Your task to perform on an android device: Open ESPN.com Image 0: 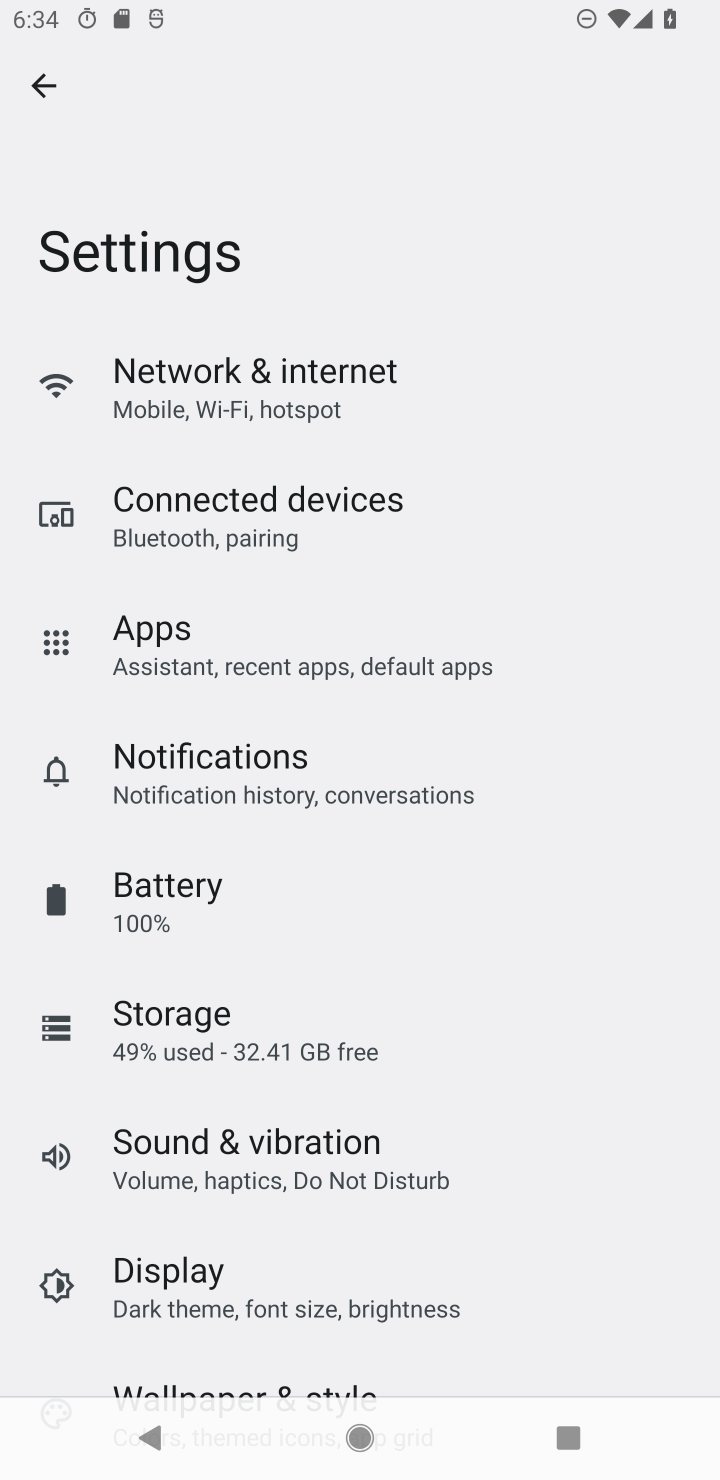
Step 0: drag from (416, 1114) to (363, 222)
Your task to perform on an android device: Open ESPN.com Image 1: 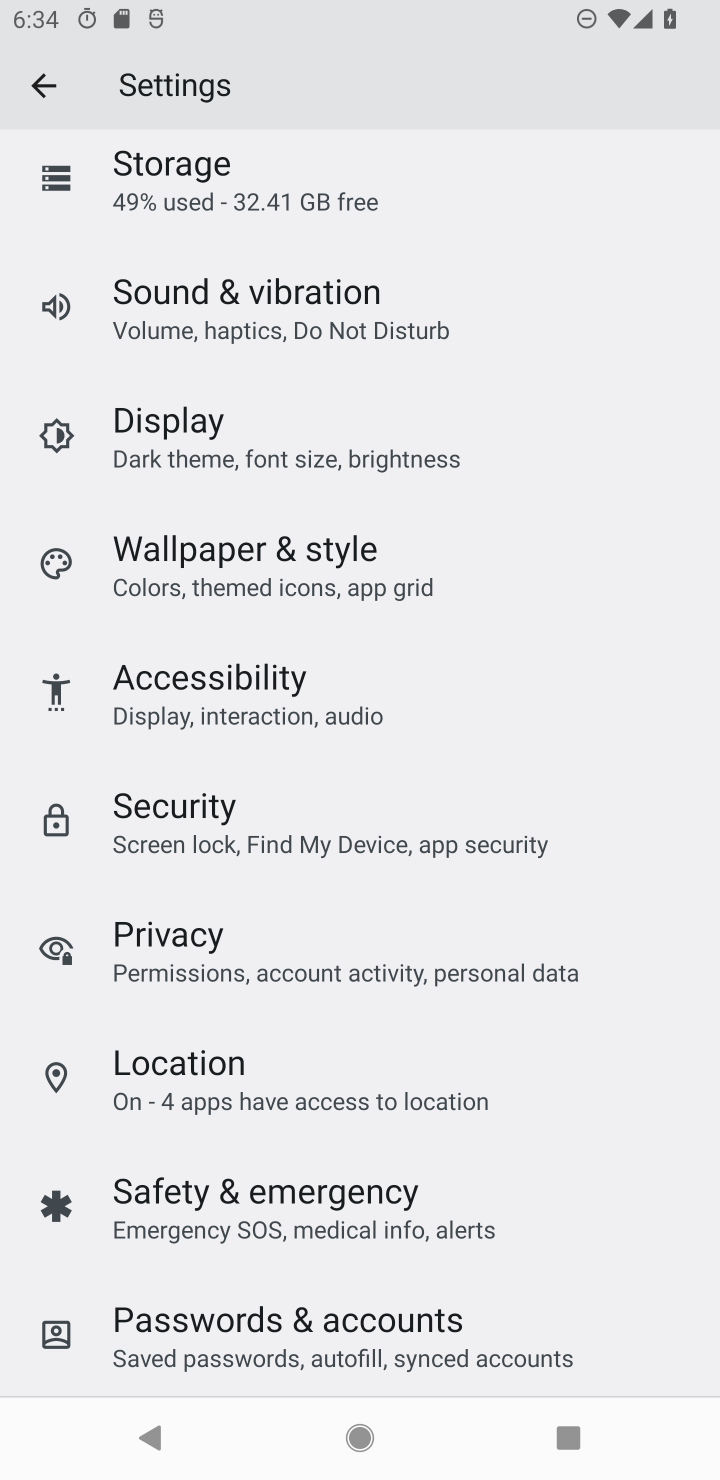
Step 1: drag from (388, 546) to (508, 1477)
Your task to perform on an android device: Open ESPN.com Image 2: 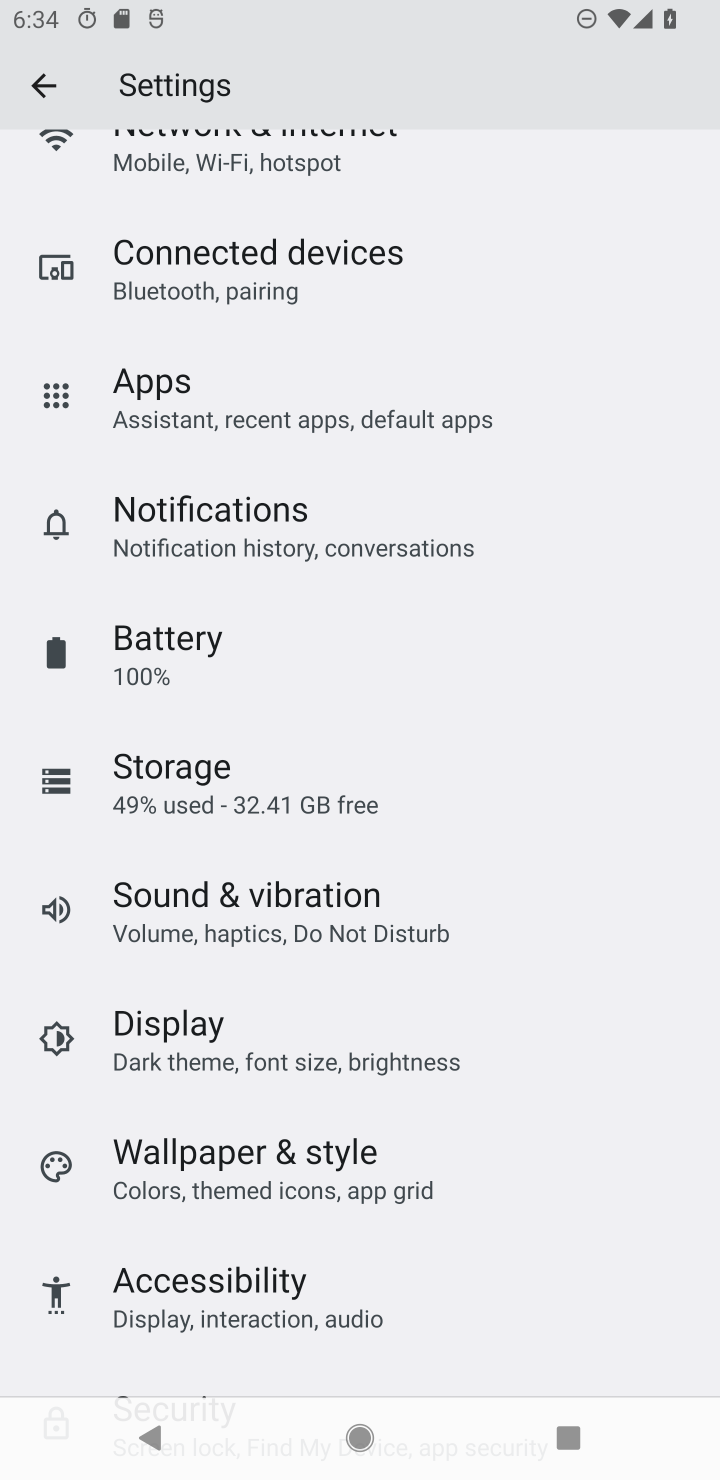
Step 2: press home button
Your task to perform on an android device: Open ESPN.com Image 3: 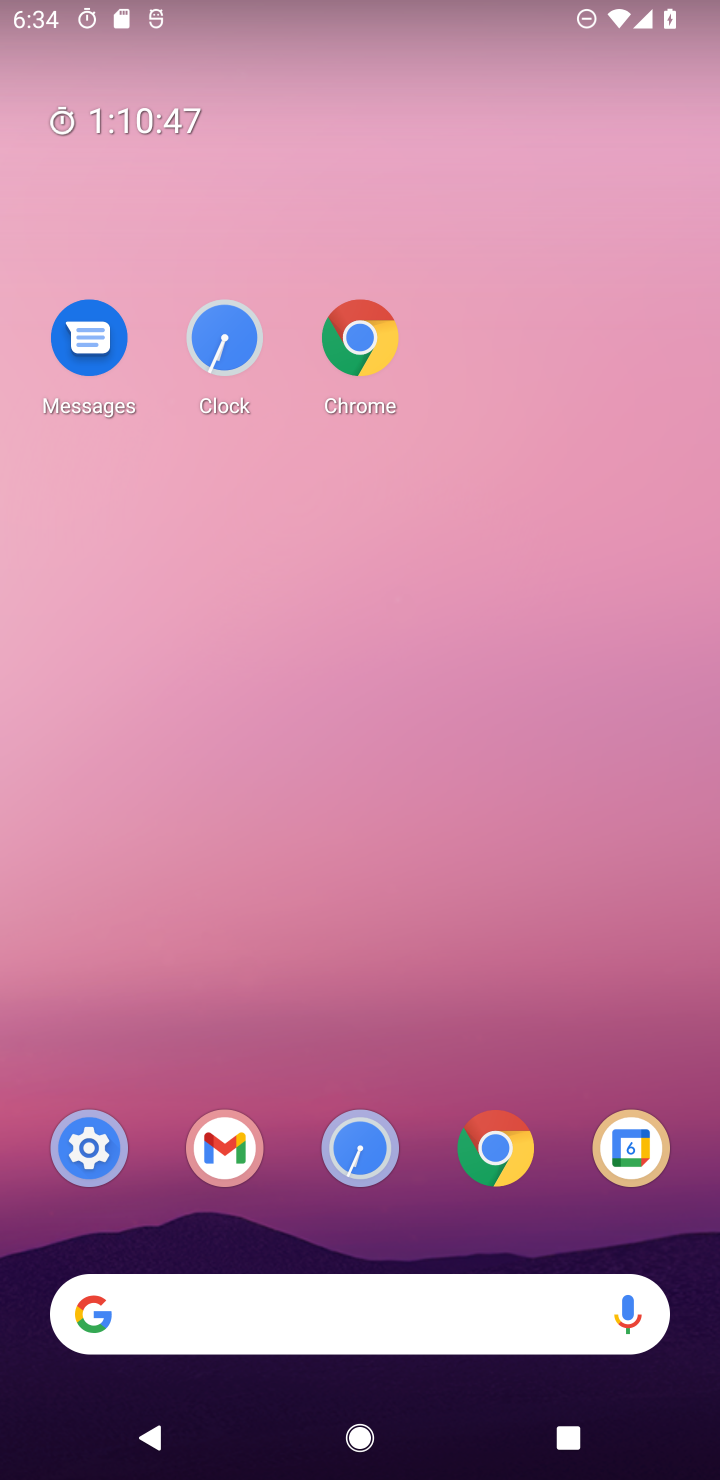
Step 3: drag from (410, 1195) to (463, 307)
Your task to perform on an android device: Open ESPN.com Image 4: 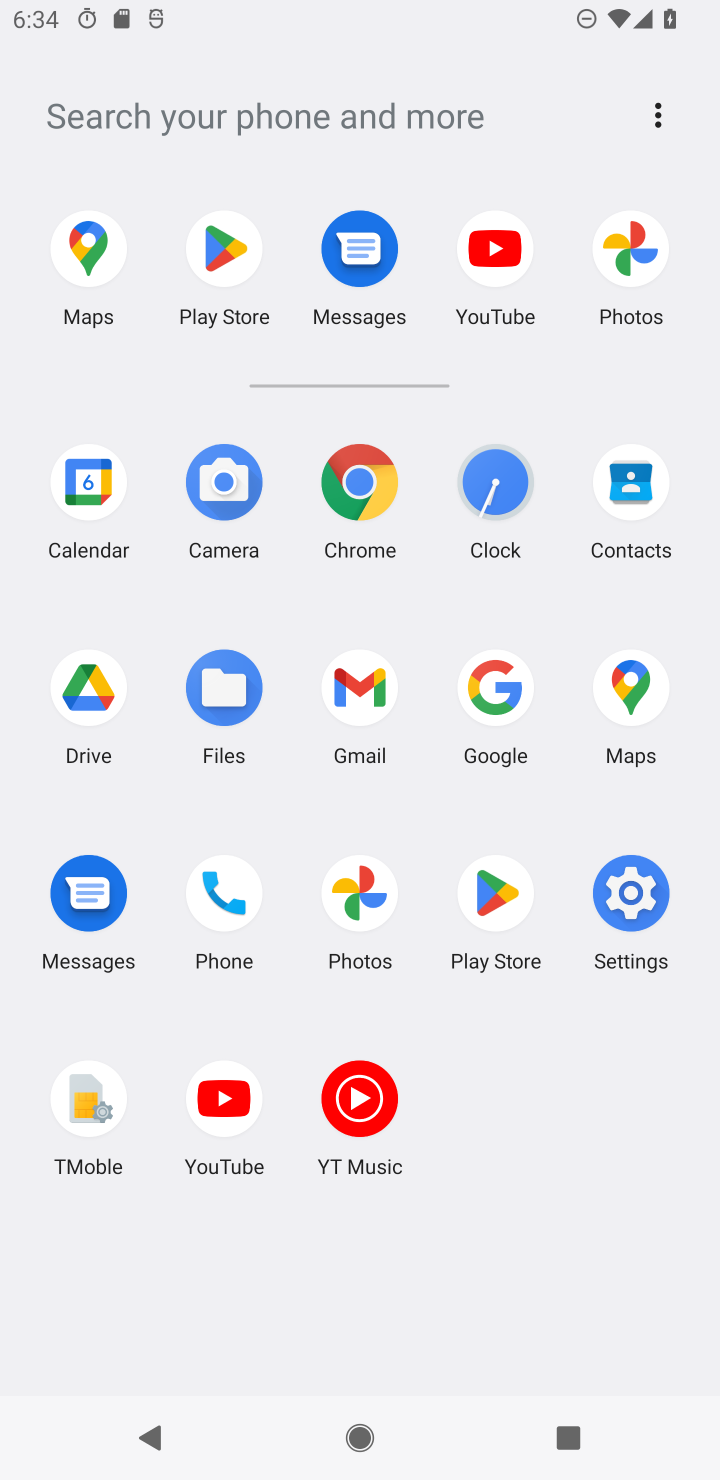
Step 4: click (326, 704)
Your task to perform on an android device: Open ESPN.com Image 5: 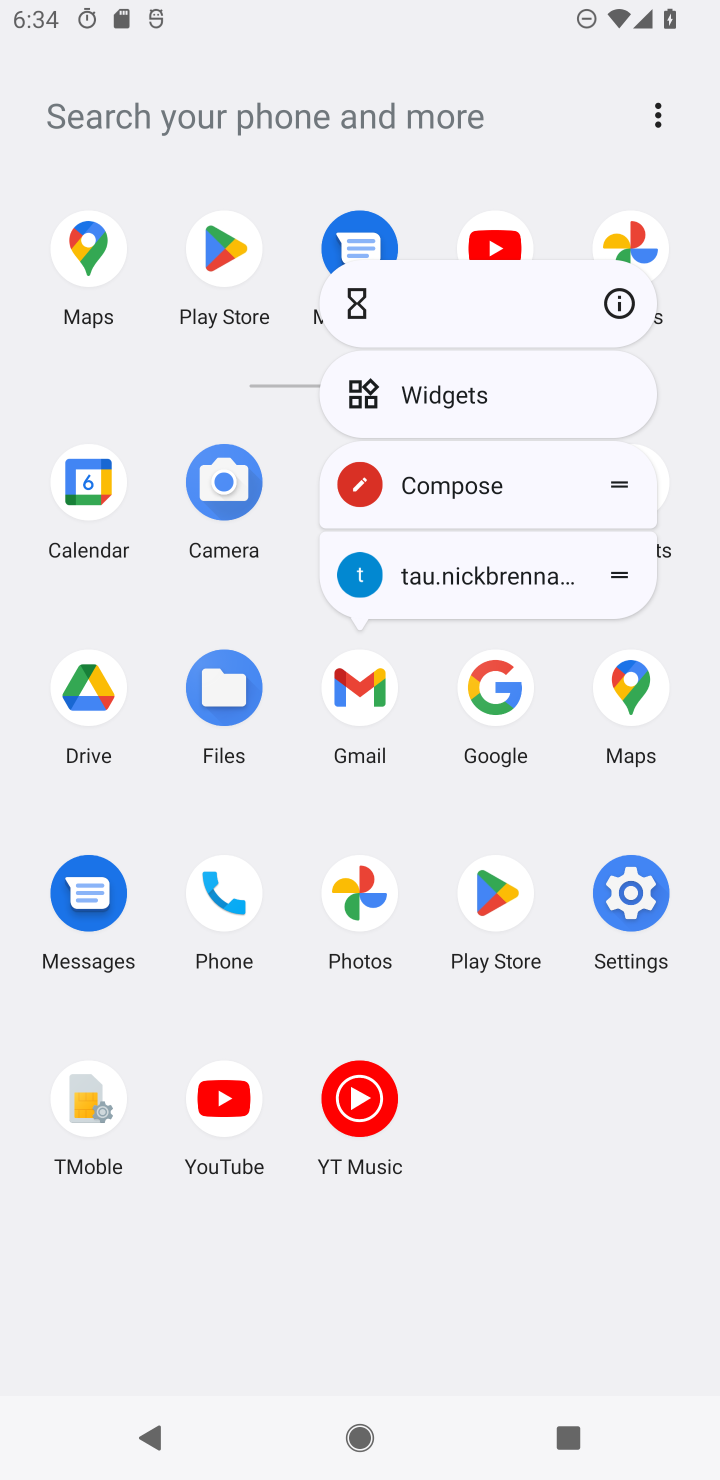
Step 5: click (582, 299)
Your task to perform on an android device: Open ESPN.com Image 6: 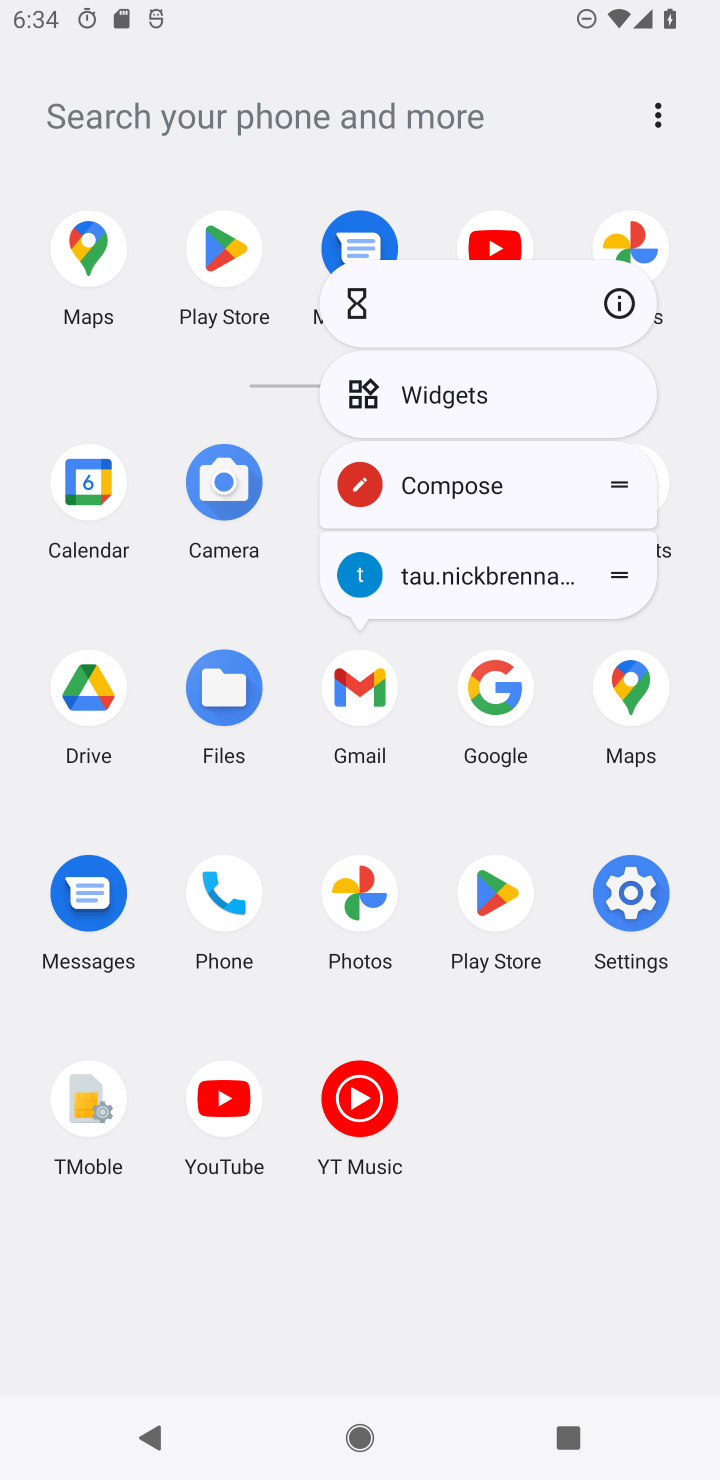
Step 6: click (600, 305)
Your task to perform on an android device: Open ESPN.com Image 7: 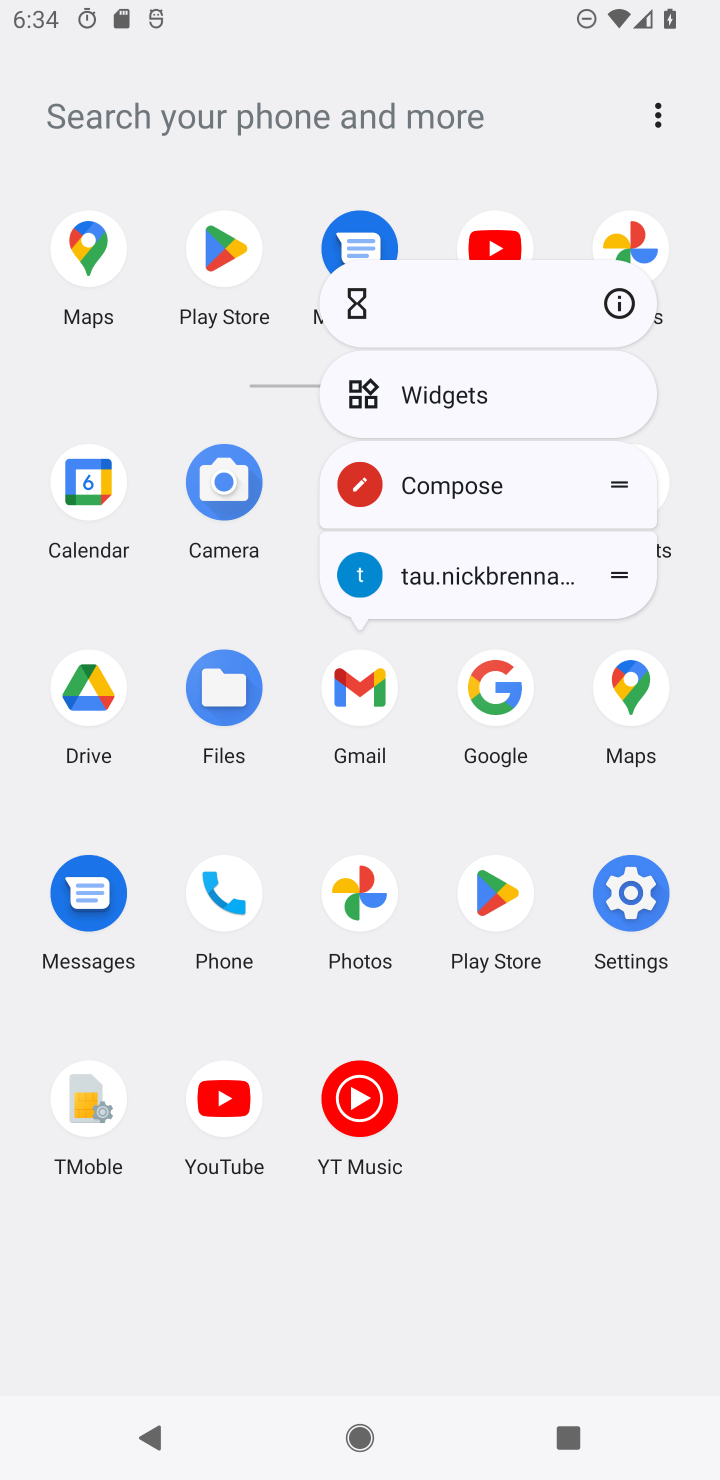
Step 7: click (613, 295)
Your task to perform on an android device: Open ESPN.com Image 8: 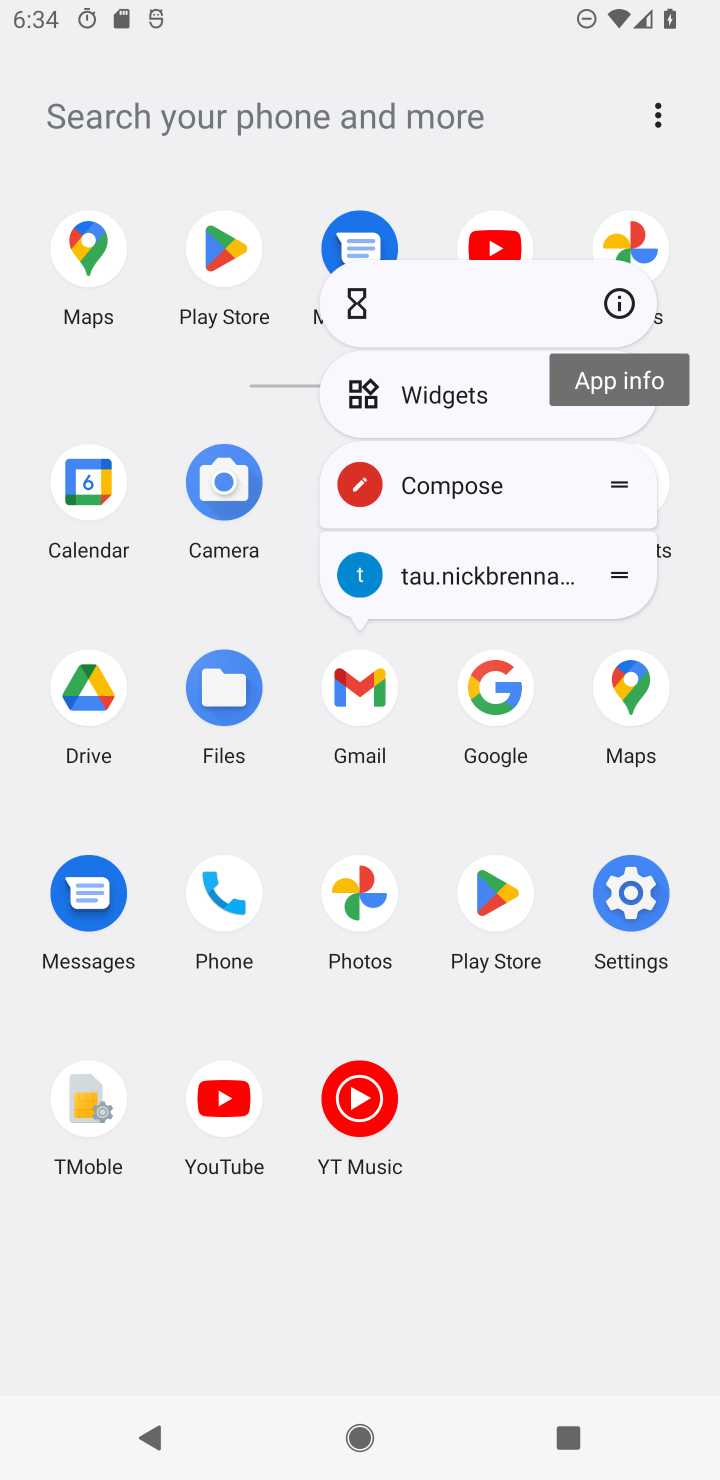
Step 8: click (355, 691)
Your task to perform on an android device: Open ESPN.com Image 9: 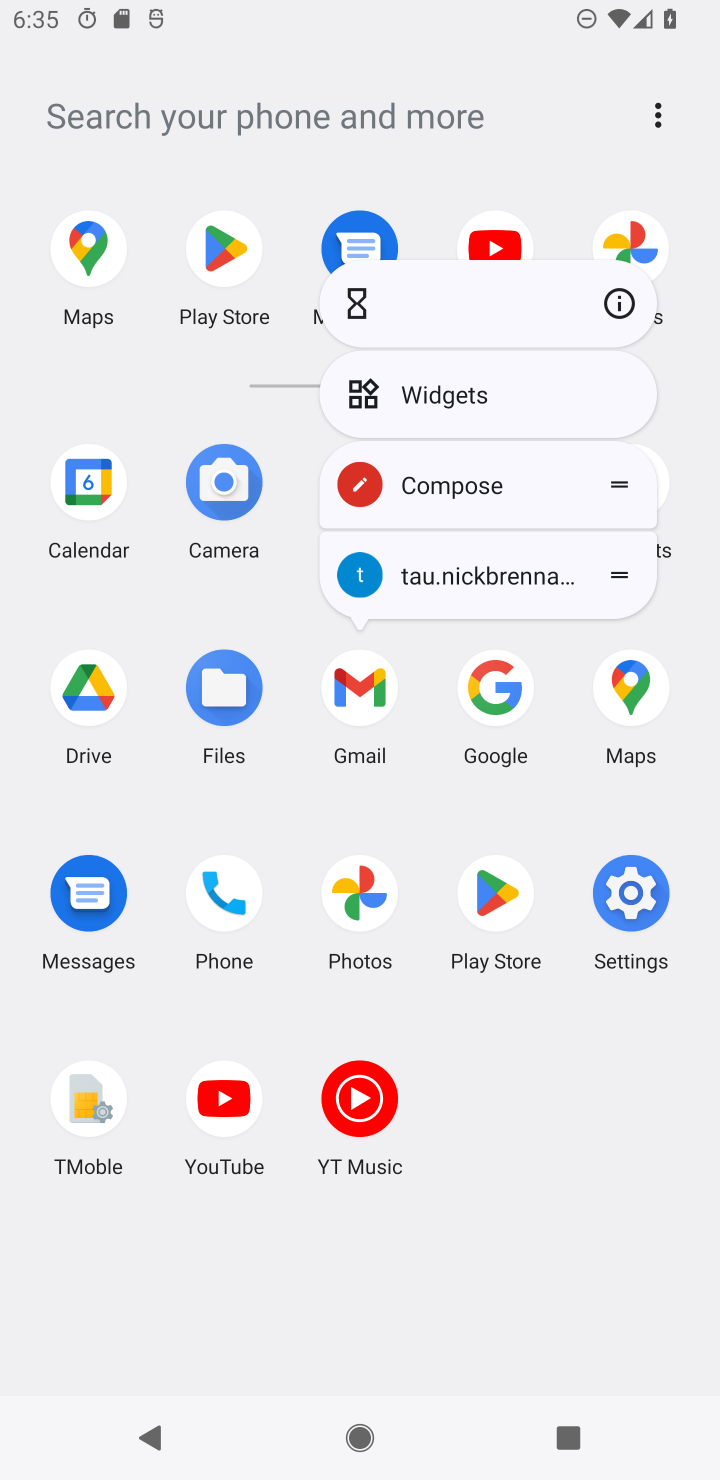
Step 9: click (343, 673)
Your task to perform on an android device: Open ESPN.com Image 10: 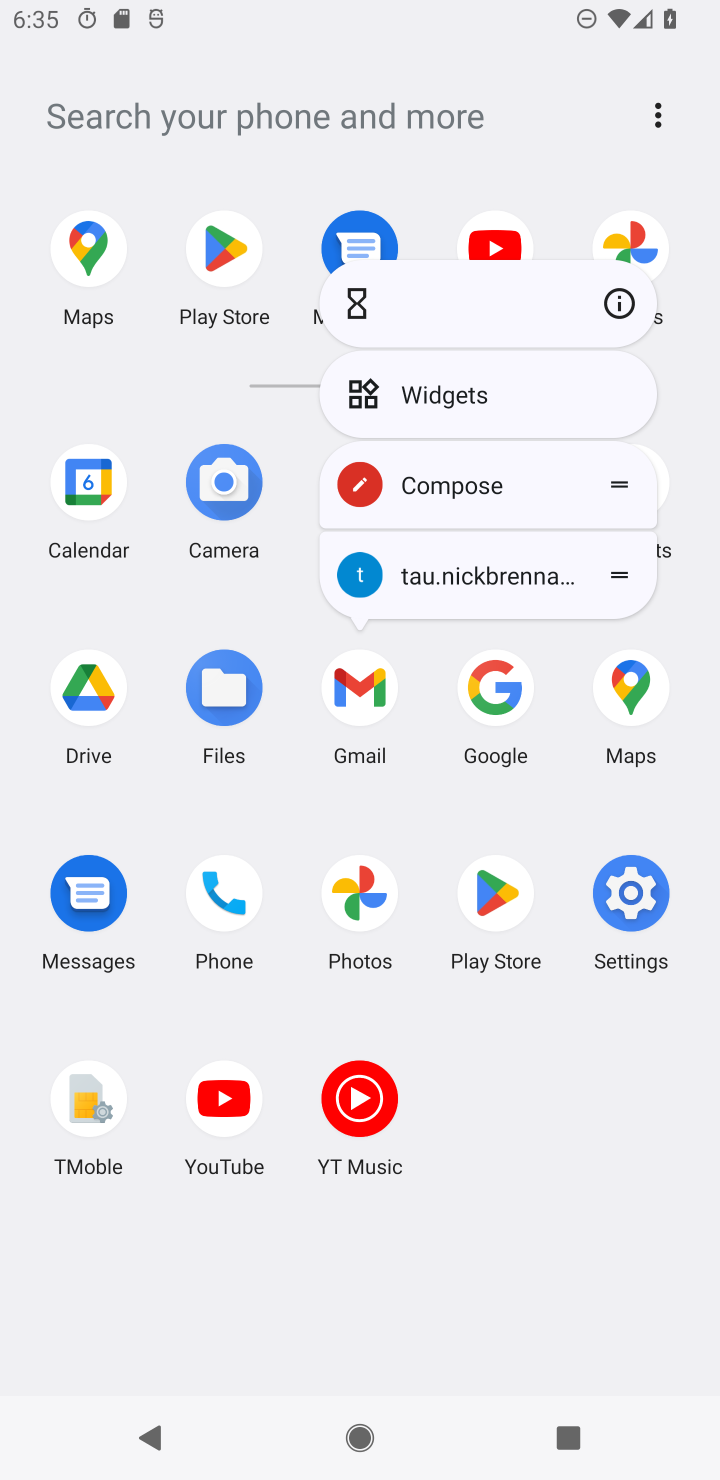
Step 10: click (351, 665)
Your task to perform on an android device: Open ESPN.com Image 11: 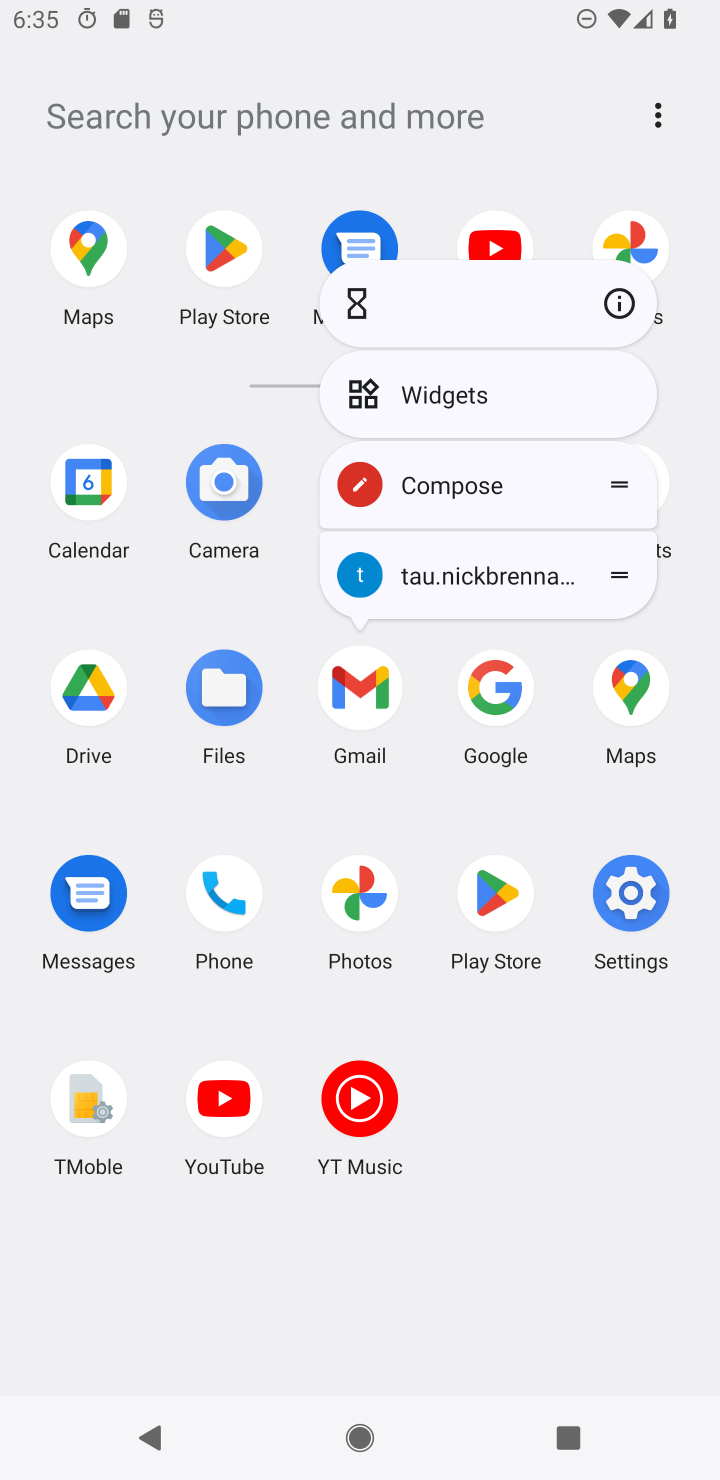
Step 11: click (351, 665)
Your task to perform on an android device: Open ESPN.com Image 12: 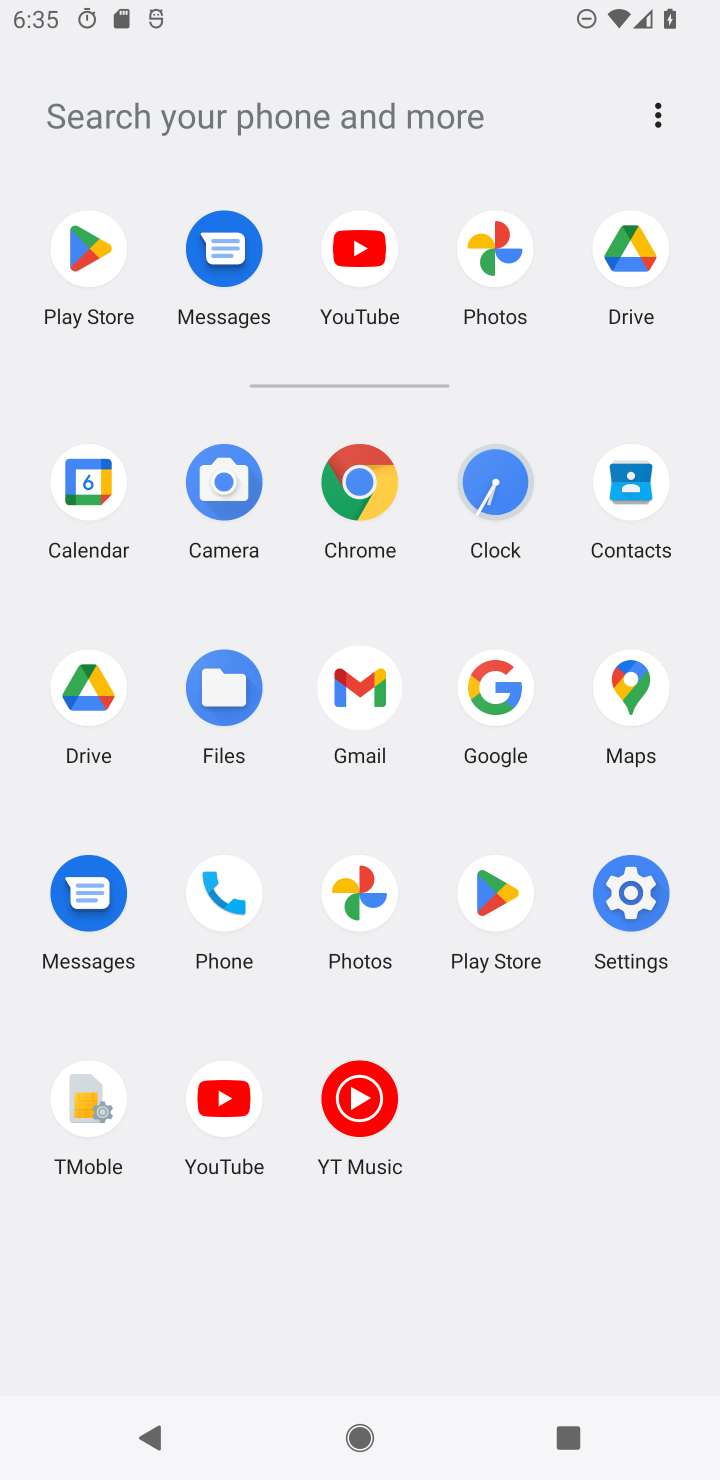
Step 12: click (351, 665)
Your task to perform on an android device: Open ESPN.com Image 13: 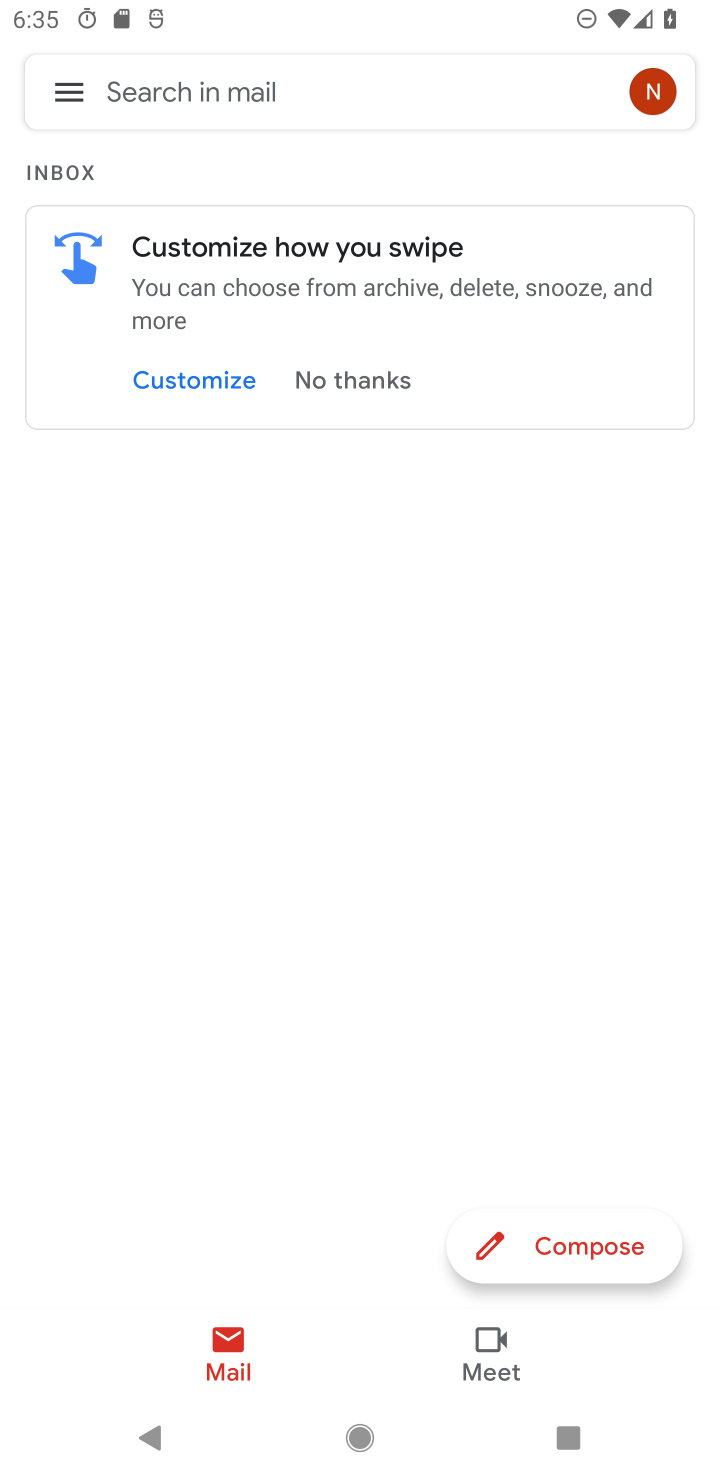
Step 13: drag from (337, 1039) to (389, 584)
Your task to perform on an android device: Open ESPN.com Image 14: 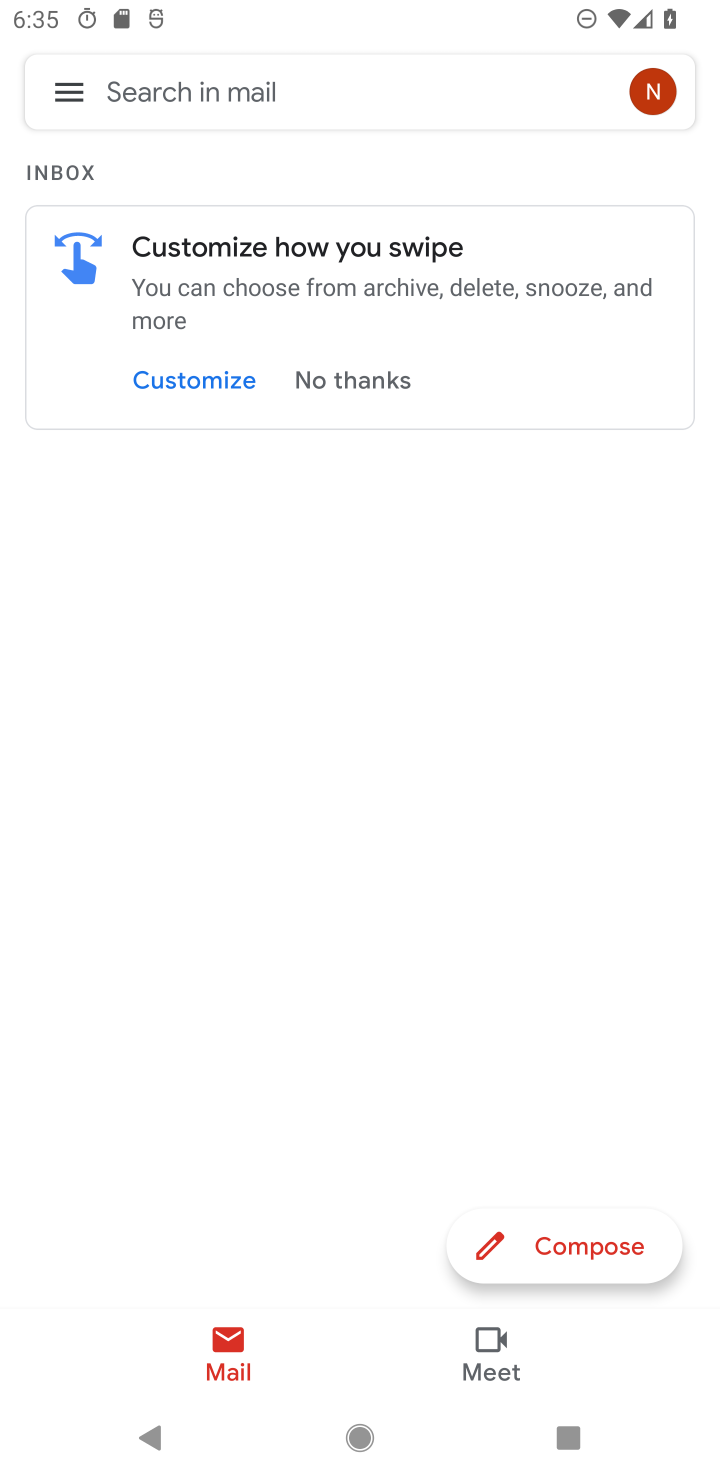
Step 14: drag from (407, 662) to (392, 305)
Your task to perform on an android device: Open ESPN.com Image 15: 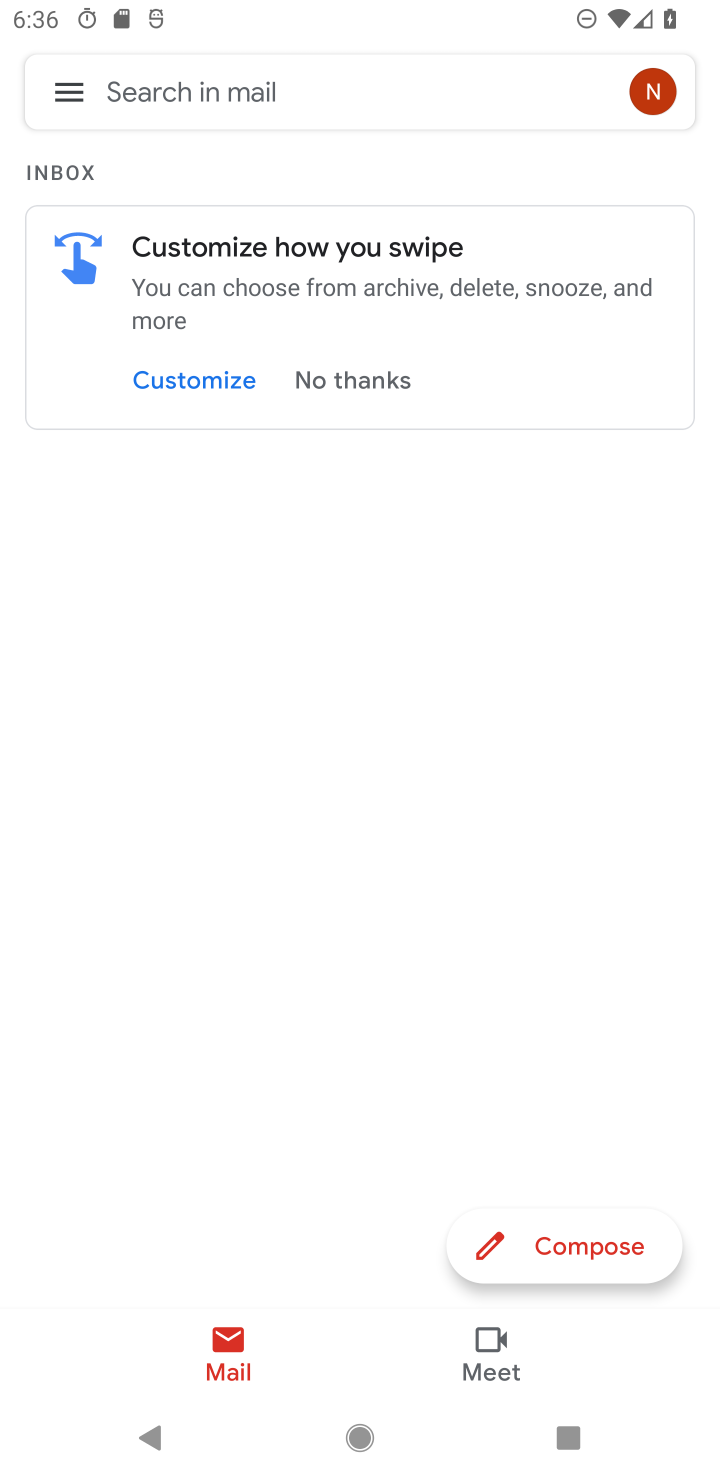
Step 15: press home button
Your task to perform on an android device: Open ESPN.com Image 16: 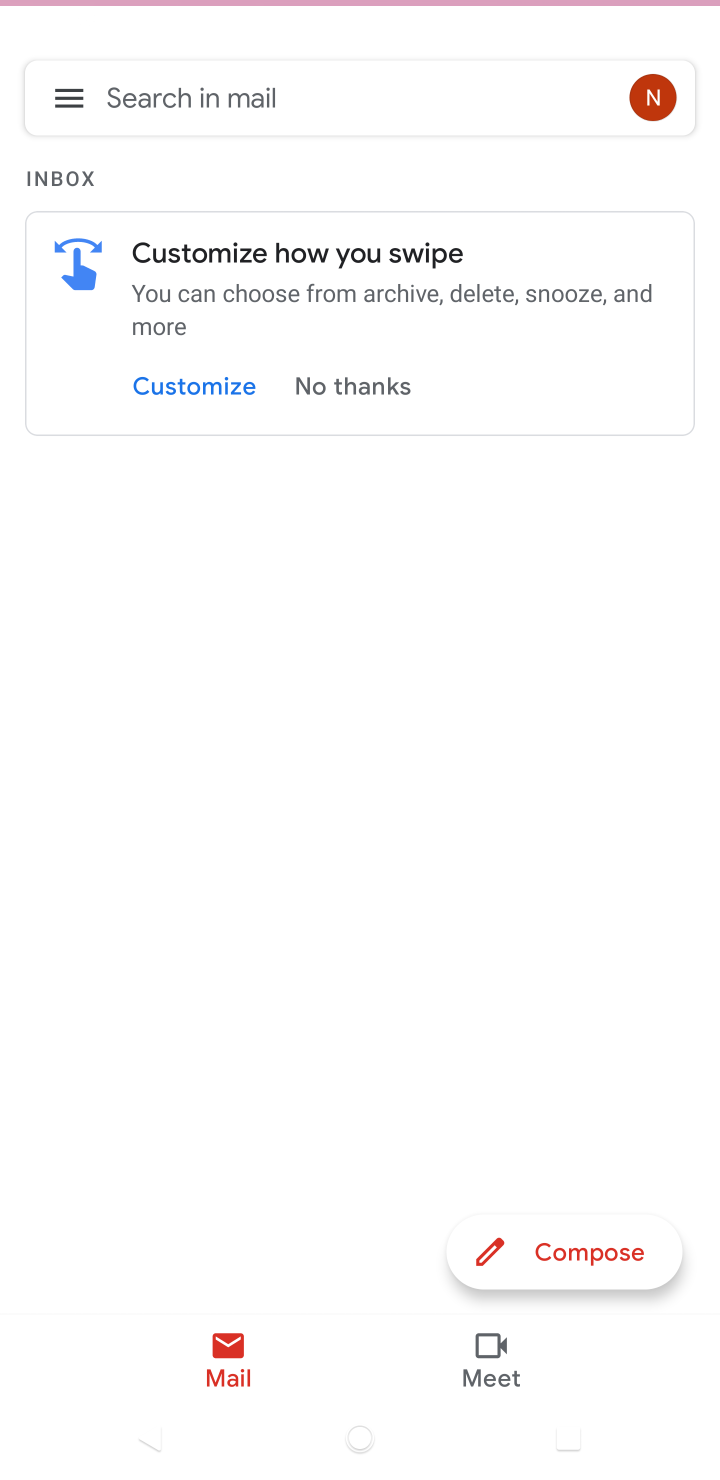
Step 16: drag from (353, 1193) to (359, 229)
Your task to perform on an android device: Open ESPN.com Image 17: 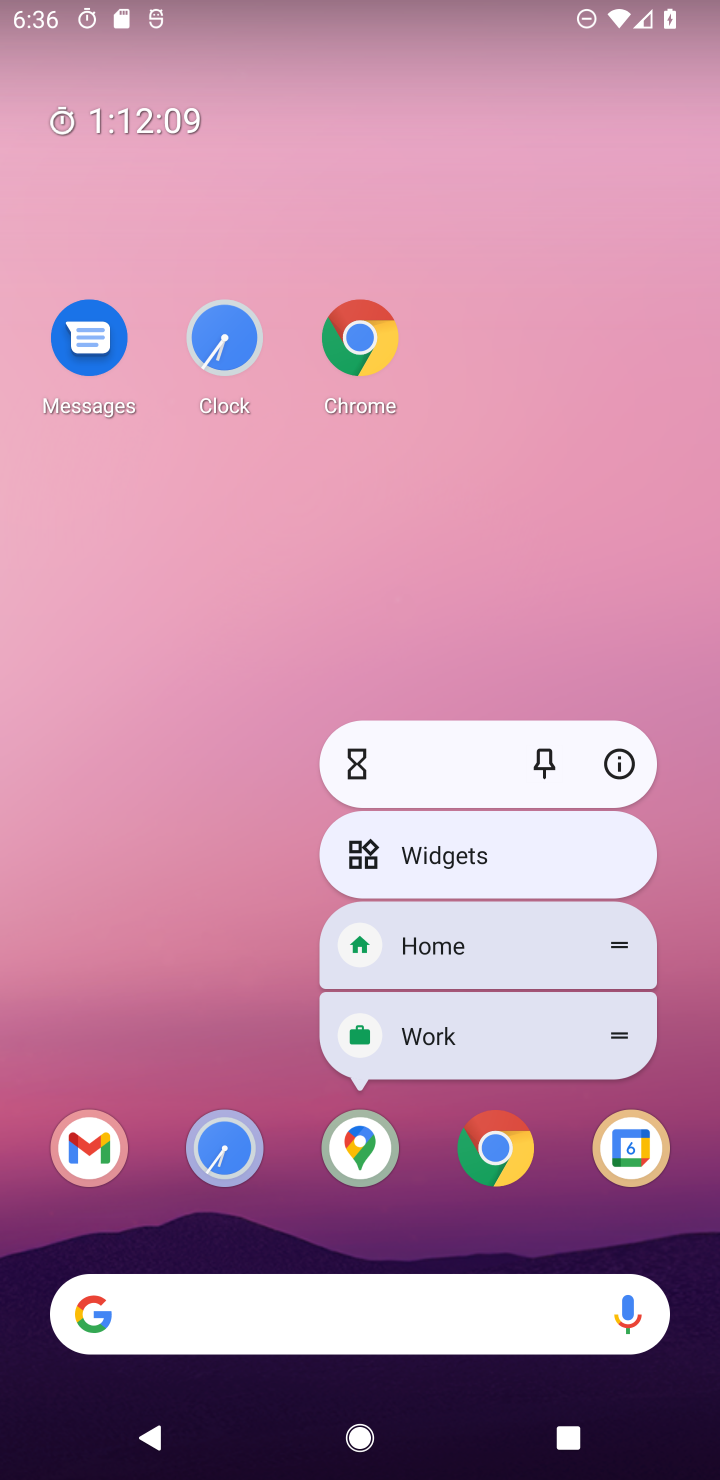
Step 17: click (479, 1140)
Your task to perform on an android device: Open ESPN.com Image 18: 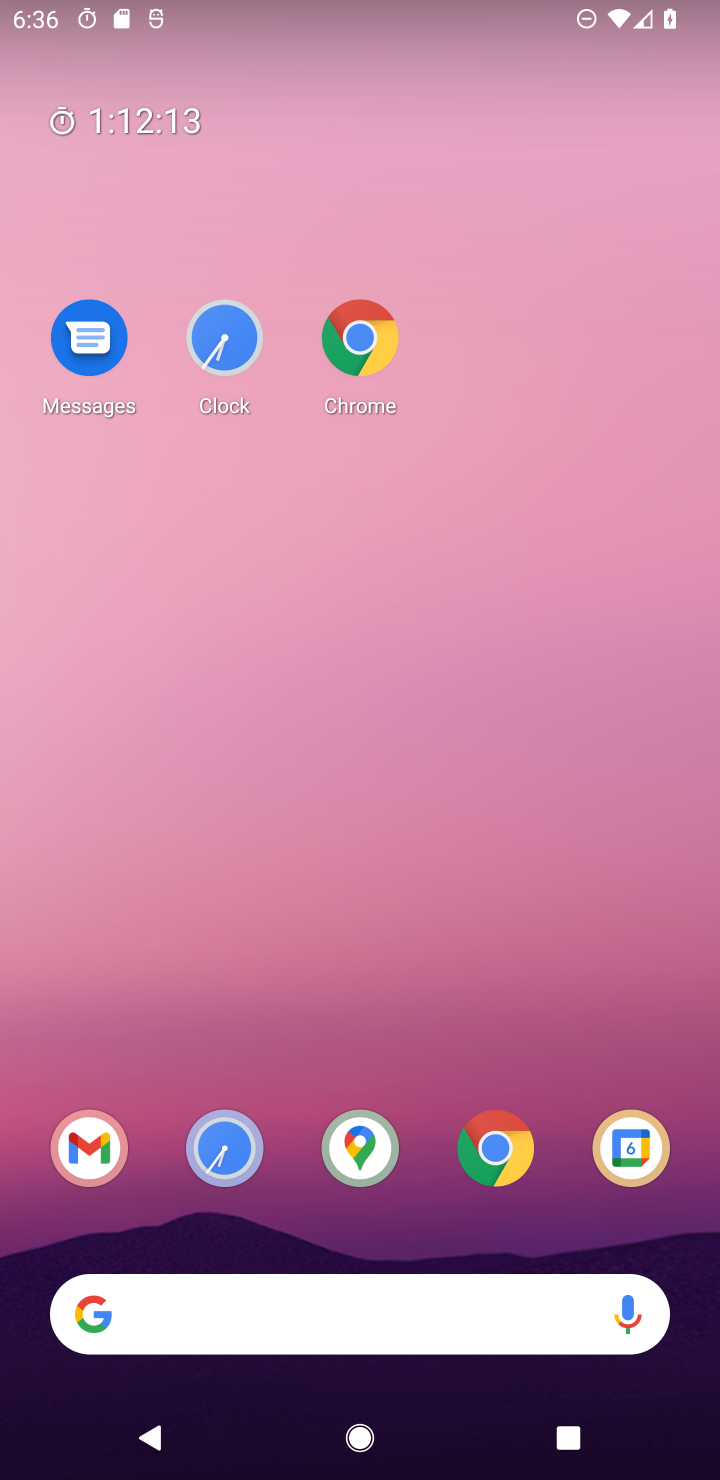
Step 18: click (502, 1144)
Your task to perform on an android device: Open ESPN.com Image 19: 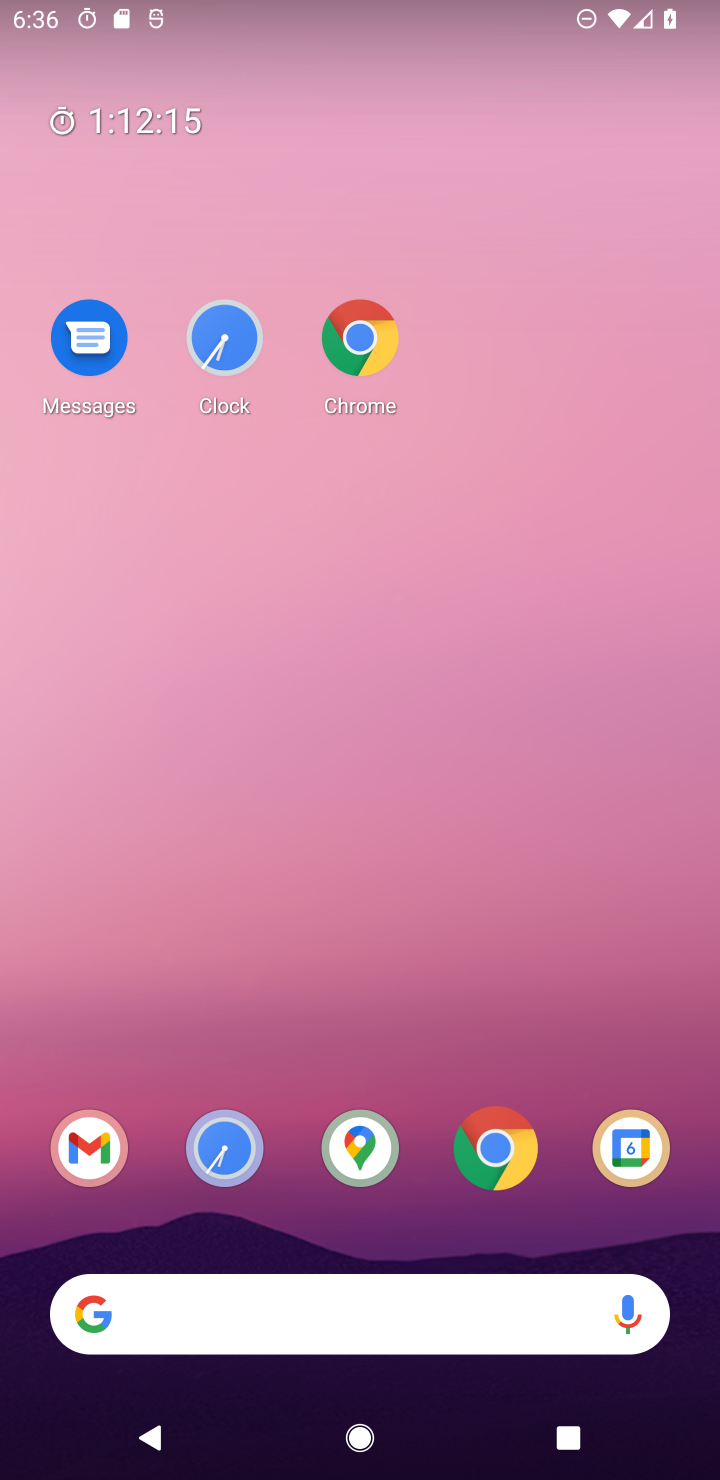
Step 19: click (502, 1133)
Your task to perform on an android device: Open ESPN.com Image 20: 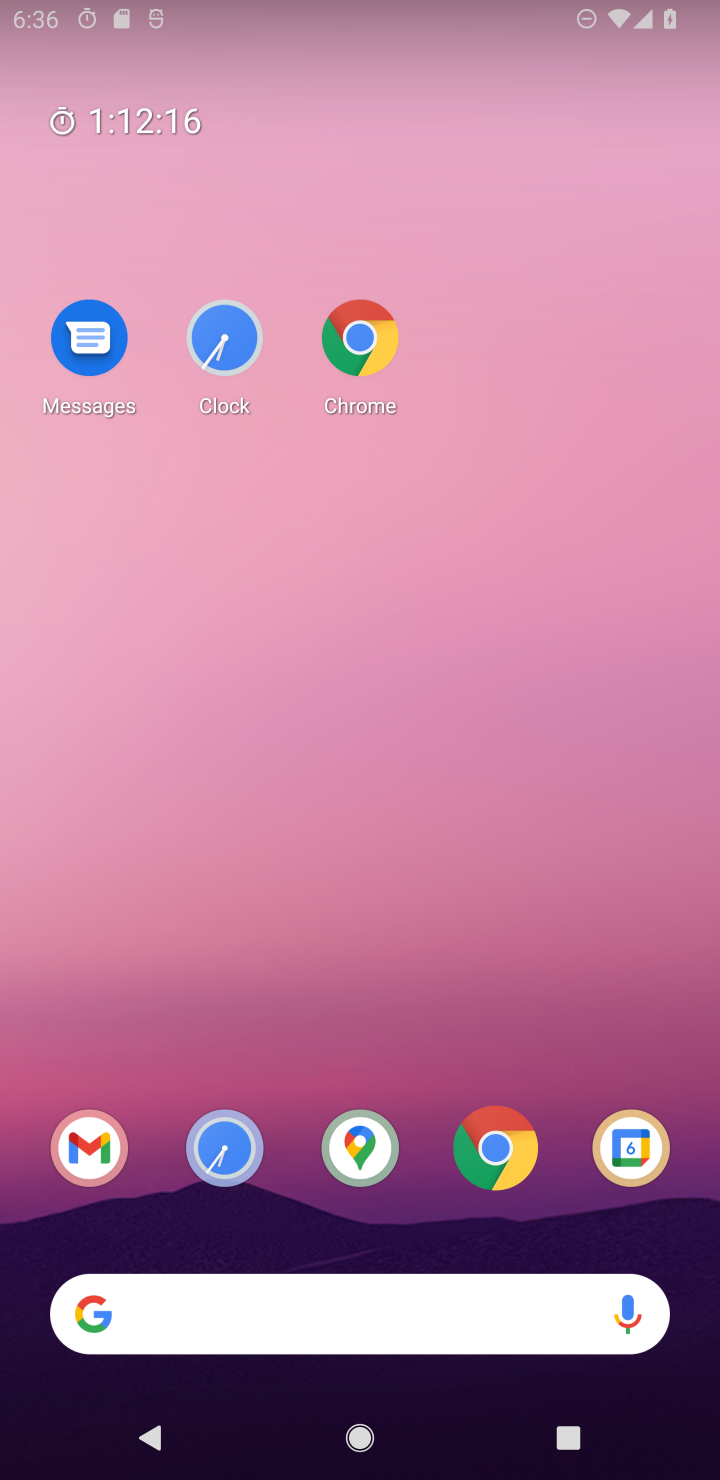
Step 20: click (487, 1159)
Your task to perform on an android device: Open ESPN.com Image 21: 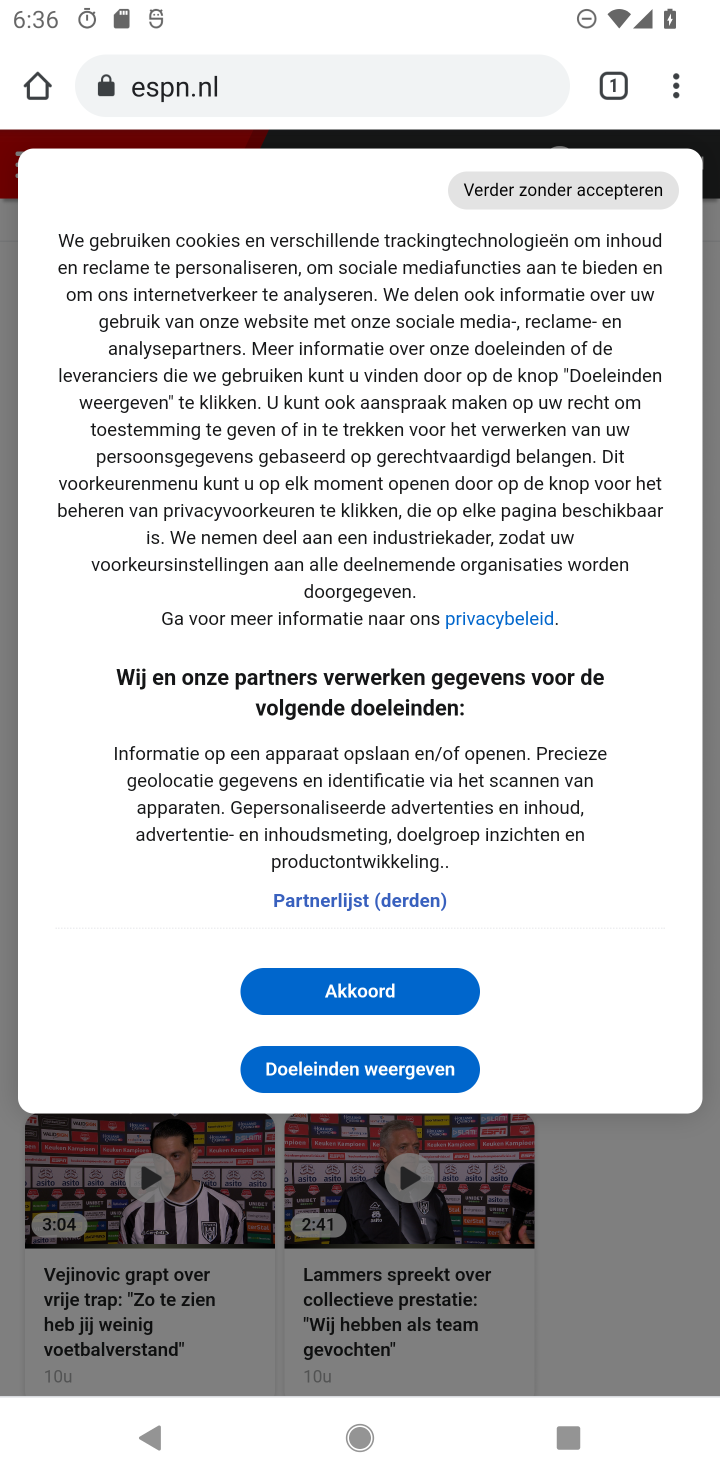
Step 21: click (663, 1442)
Your task to perform on an android device: Open ESPN.com Image 22: 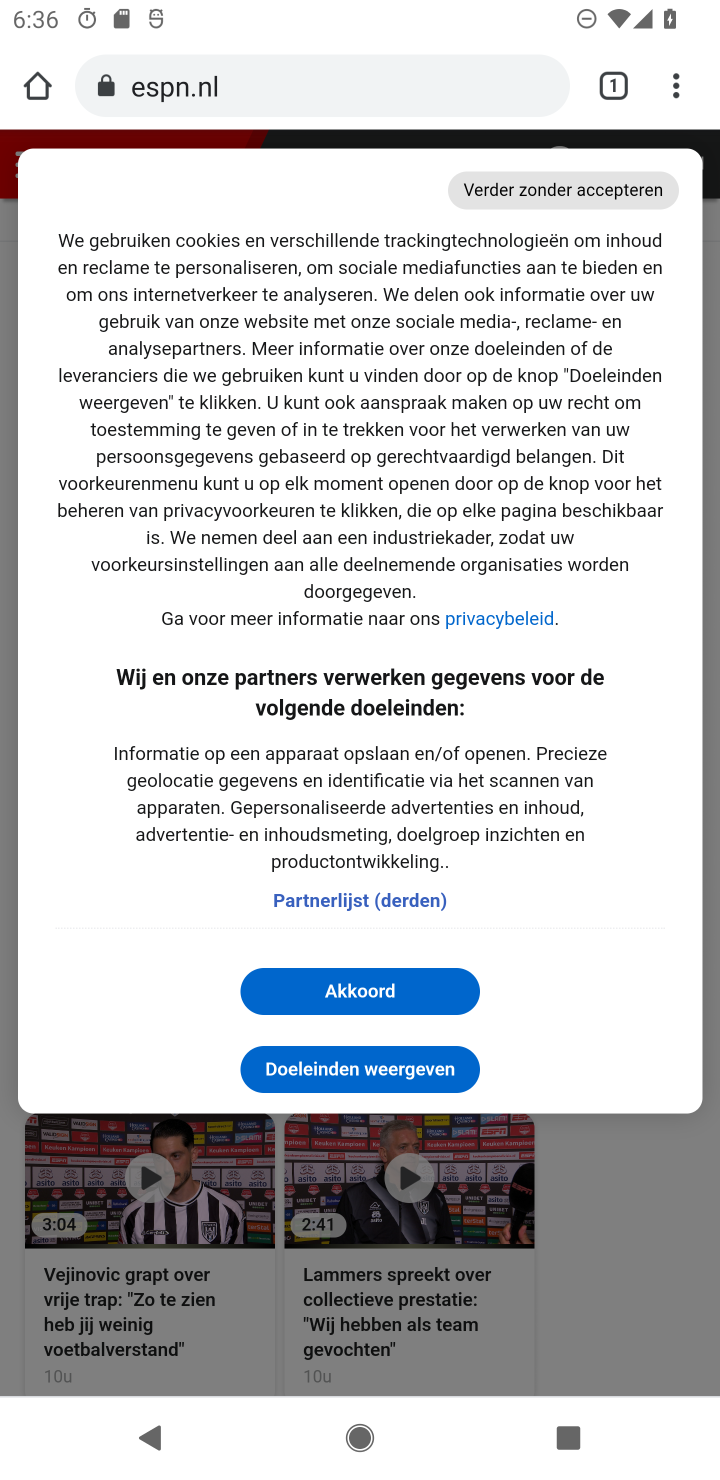
Step 22: task complete